Your task to perform on an android device: refresh tabs in the chrome app Image 0: 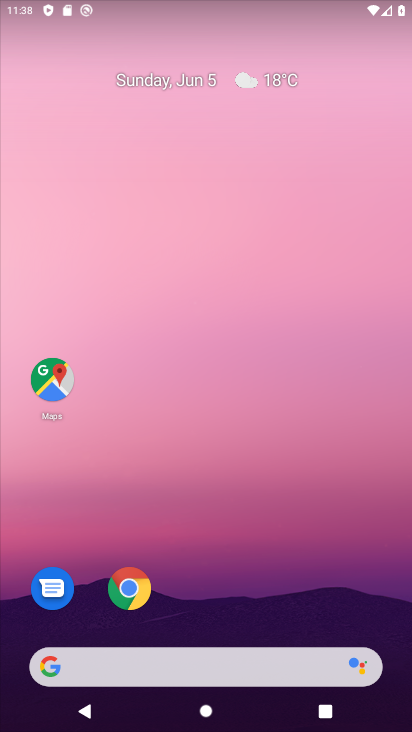
Step 0: click (124, 597)
Your task to perform on an android device: refresh tabs in the chrome app Image 1: 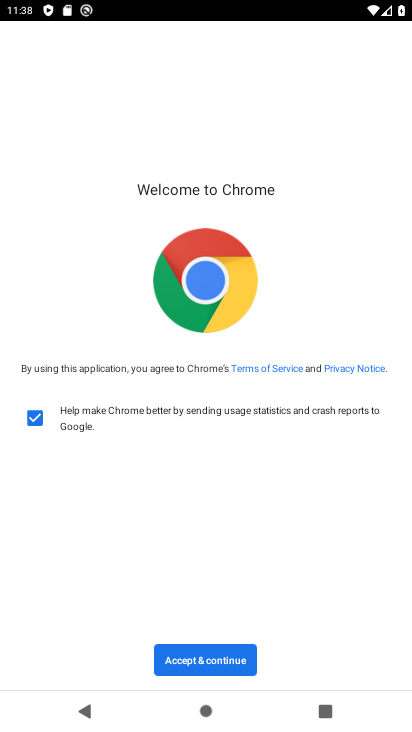
Step 1: click (184, 669)
Your task to perform on an android device: refresh tabs in the chrome app Image 2: 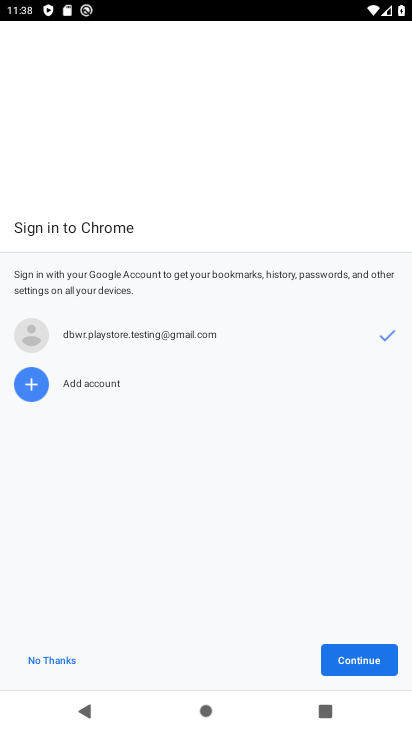
Step 2: click (362, 668)
Your task to perform on an android device: refresh tabs in the chrome app Image 3: 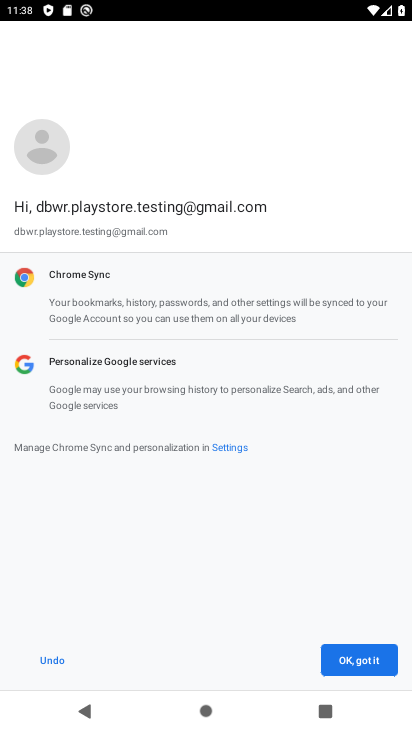
Step 3: click (372, 667)
Your task to perform on an android device: refresh tabs in the chrome app Image 4: 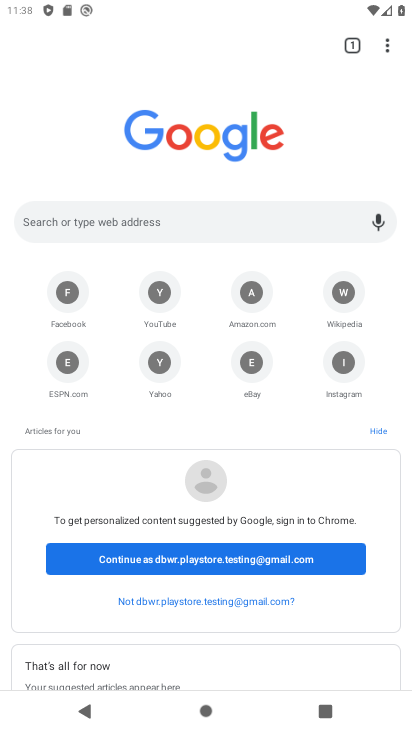
Step 4: click (388, 40)
Your task to perform on an android device: refresh tabs in the chrome app Image 5: 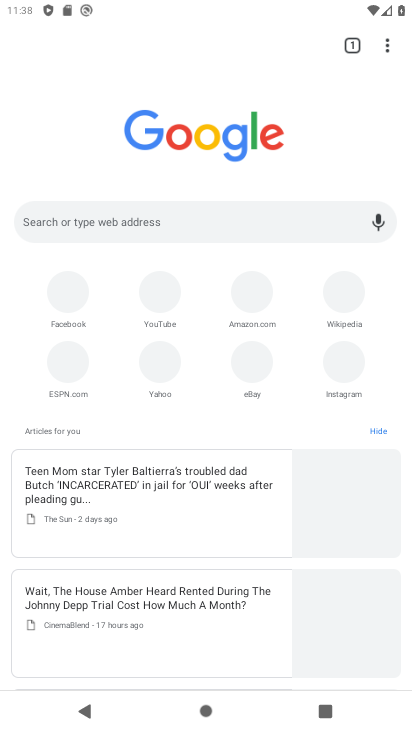
Step 5: task complete